Your task to perform on an android device: toggle notifications settings in the gmail app Image 0: 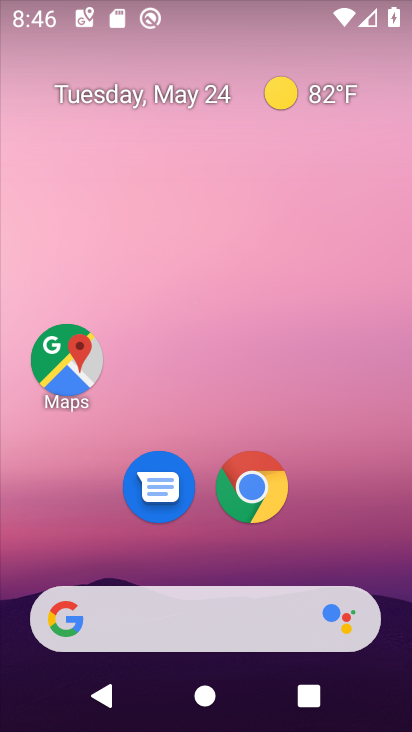
Step 0: drag from (360, 541) to (304, 151)
Your task to perform on an android device: toggle notifications settings in the gmail app Image 1: 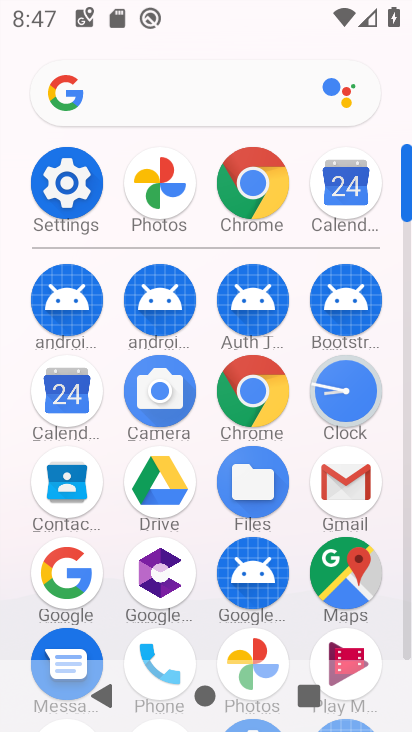
Step 1: click (355, 473)
Your task to perform on an android device: toggle notifications settings in the gmail app Image 2: 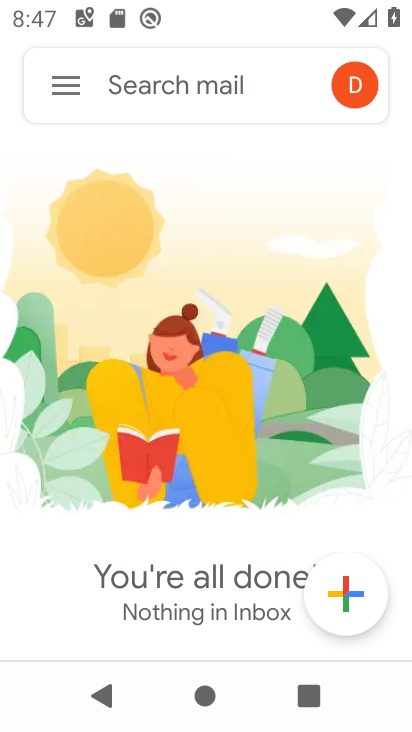
Step 2: click (64, 81)
Your task to perform on an android device: toggle notifications settings in the gmail app Image 3: 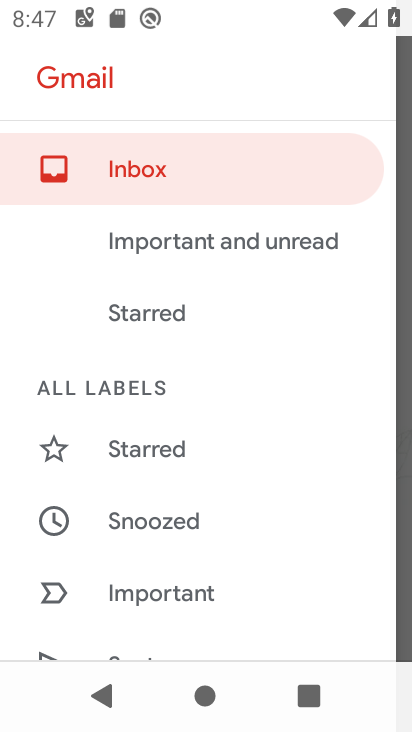
Step 3: drag from (235, 585) to (232, 246)
Your task to perform on an android device: toggle notifications settings in the gmail app Image 4: 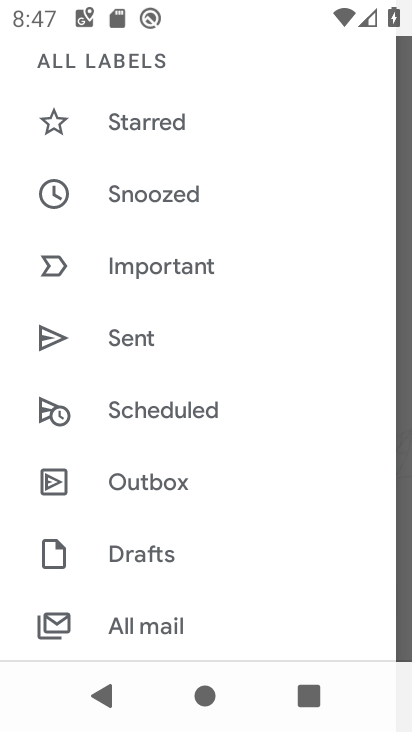
Step 4: drag from (231, 572) to (248, 258)
Your task to perform on an android device: toggle notifications settings in the gmail app Image 5: 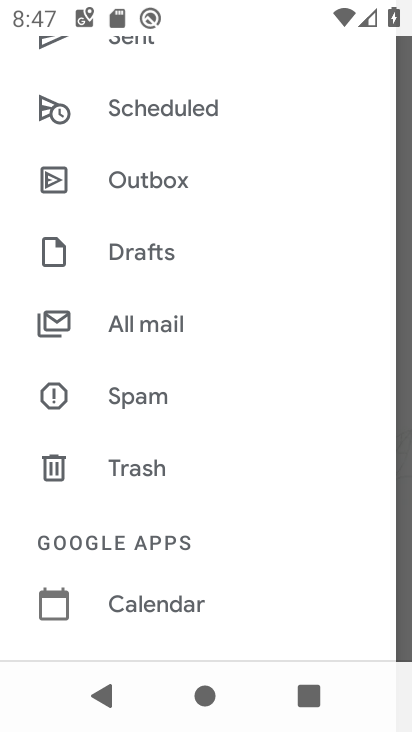
Step 5: drag from (296, 521) to (311, 245)
Your task to perform on an android device: toggle notifications settings in the gmail app Image 6: 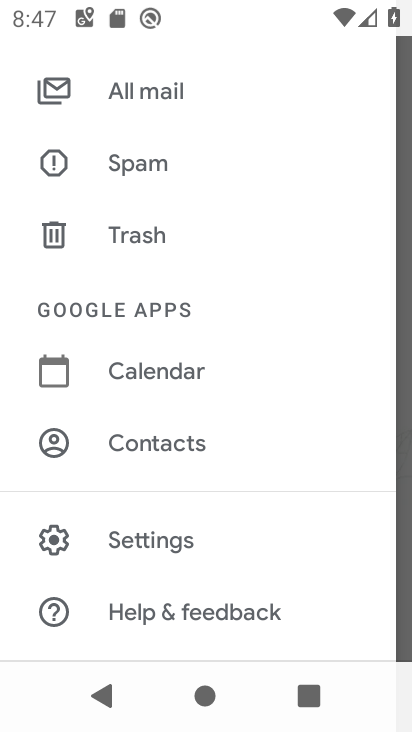
Step 6: click (171, 542)
Your task to perform on an android device: toggle notifications settings in the gmail app Image 7: 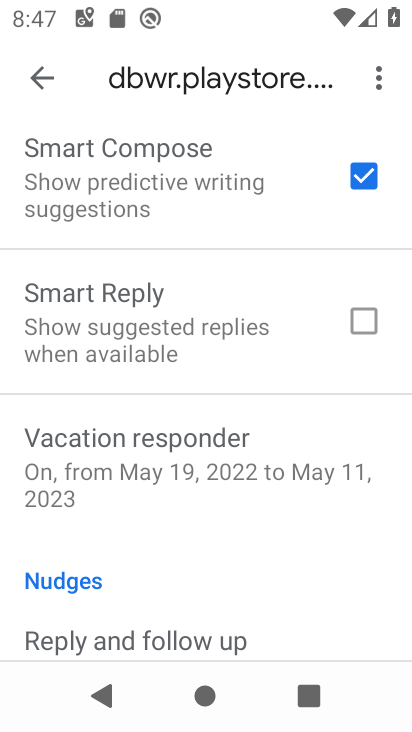
Step 7: drag from (171, 567) to (181, 301)
Your task to perform on an android device: toggle notifications settings in the gmail app Image 8: 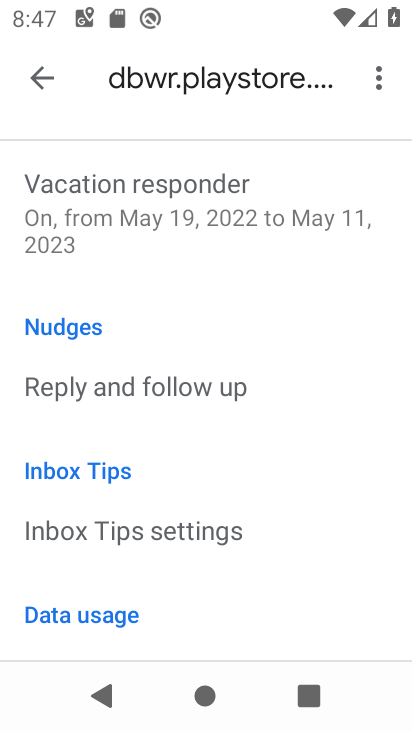
Step 8: drag from (208, 206) to (186, 645)
Your task to perform on an android device: toggle notifications settings in the gmail app Image 9: 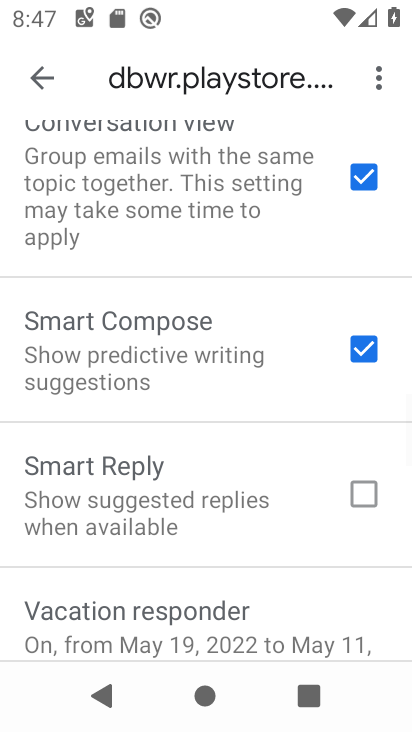
Step 9: drag from (191, 228) to (167, 688)
Your task to perform on an android device: toggle notifications settings in the gmail app Image 10: 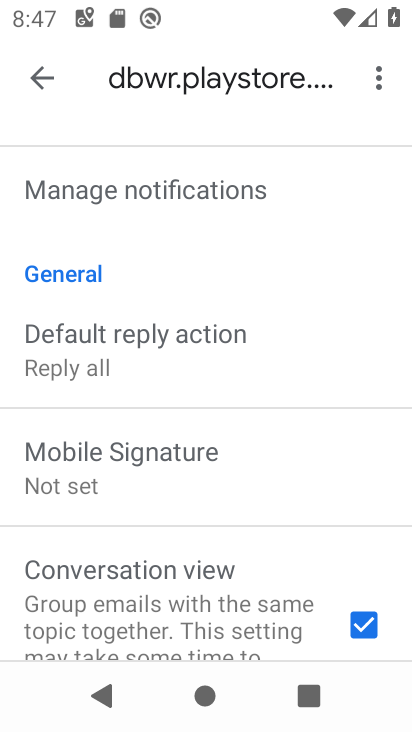
Step 10: drag from (185, 227) to (166, 619)
Your task to perform on an android device: toggle notifications settings in the gmail app Image 11: 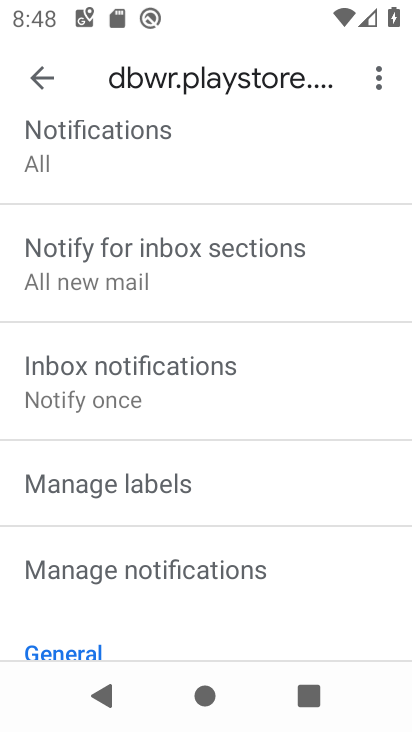
Step 11: drag from (185, 316) to (155, 586)
Your task to perform on an android device: toggle notifications settings in the gmail app Image 12: 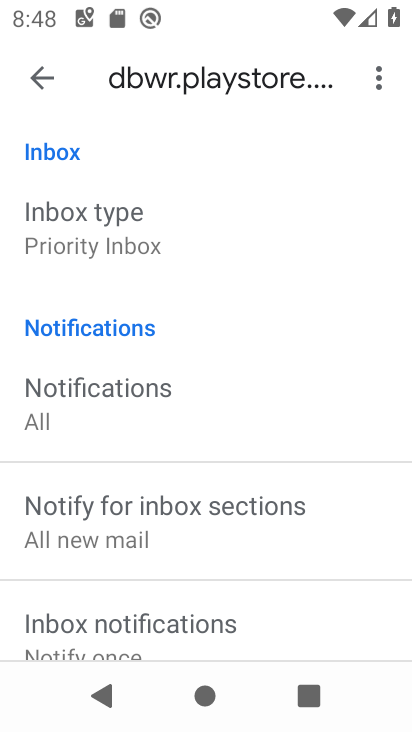
Step 12: click (106, 397)
Your task to perform on an android device: toggle notifications settings in the gmail app Image 13: 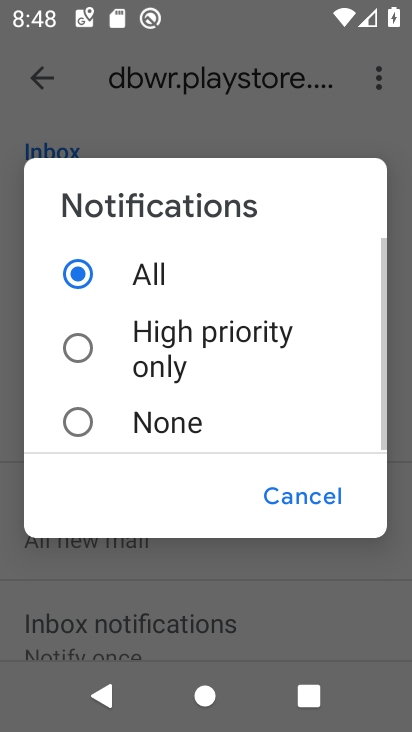
Step 13: click (143, 415)
Your task to perform on an android device: toggle notifications settings in the gmail app Image 14: 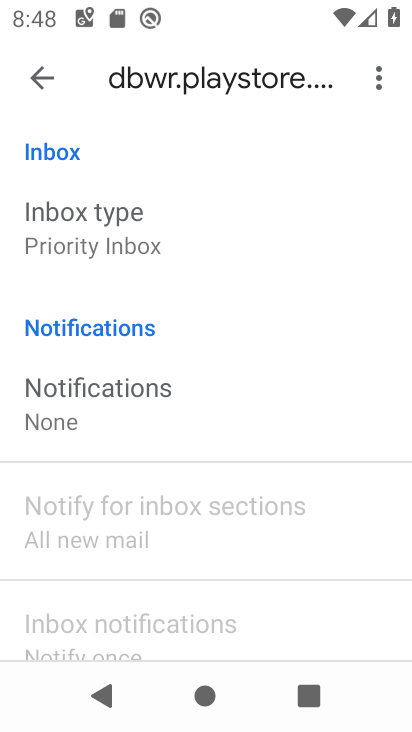
Step 14: task complete